Your task to perform on an android device: Go to Yahoo.com Image 0: 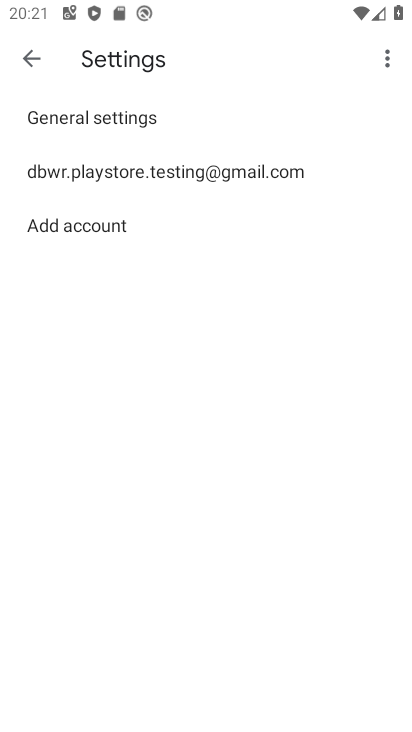
Step 0: press home button
Your task to perform on an android device: Go to Yahoo.com Image 1: 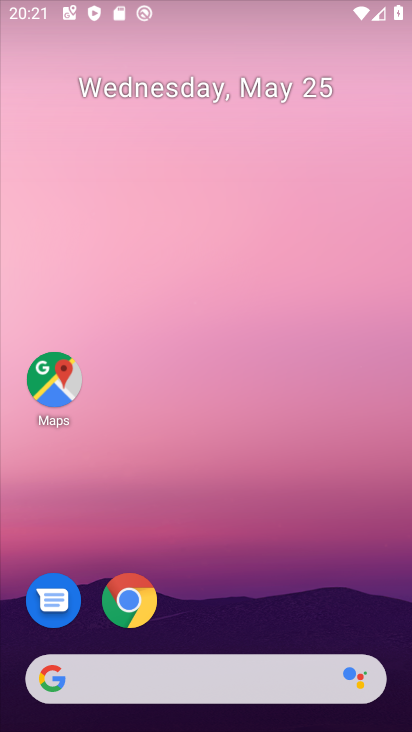
Step 1: drag from (326, 607) to (285, 306)
Your task to perform on an android device: Go to Yahoo.com Image 2: 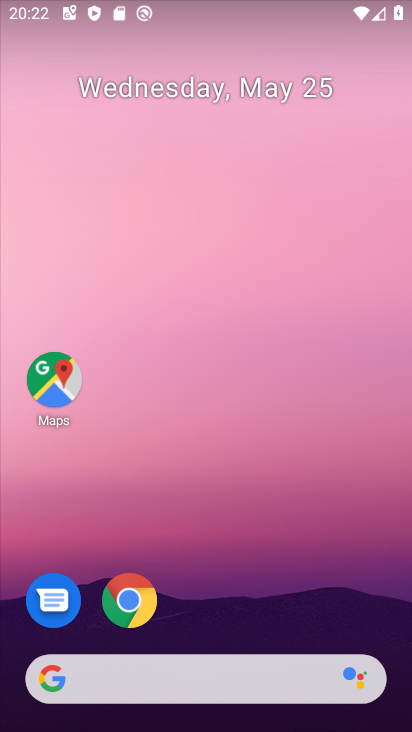
Step 2: drag from (281, 568) to (281, 219)
Your task to perform on an android device: Go to Yahoo.com Image 3: 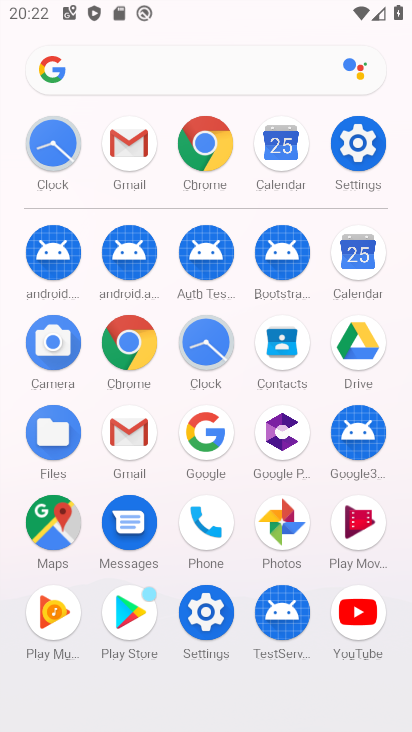
Step 3: click (142, 347)
Your task to perform on an android device: Go to Yahoo.com Image 4: 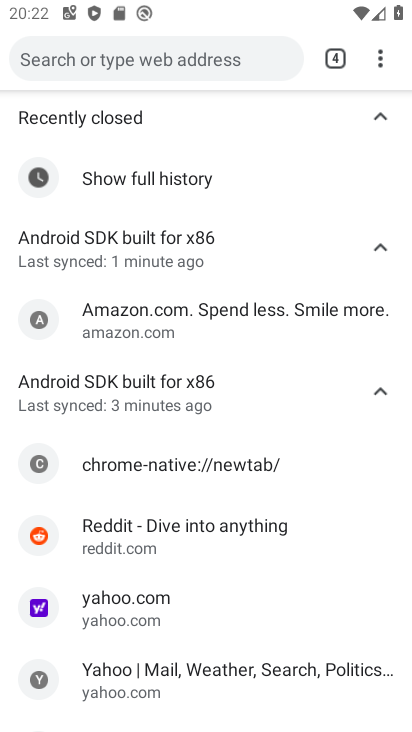
Step 4: click (202, 64)
Your task to perform on an android device: Go to Yahoo.com Image 5: 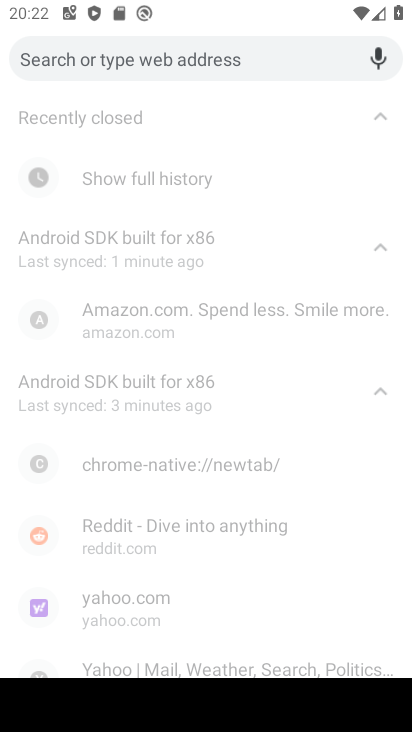
Step 5: type "yahoo.com"
Your task to perform on an android device: Go to Yahoo.com Image 6: 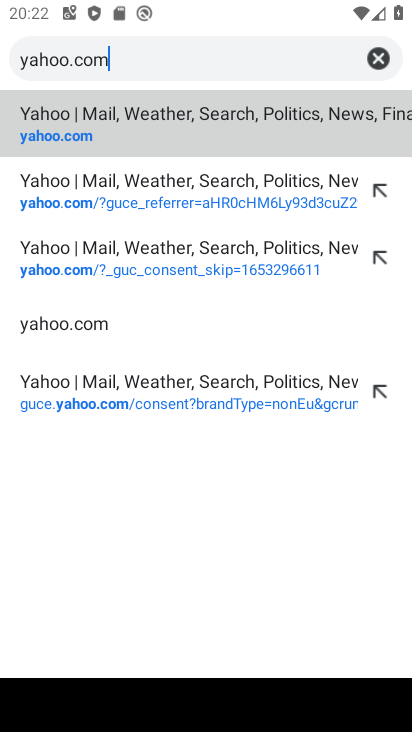
Step 6: click (110, 113)
Your task to perform on an android device: Go to Yahoo.com Image 7: 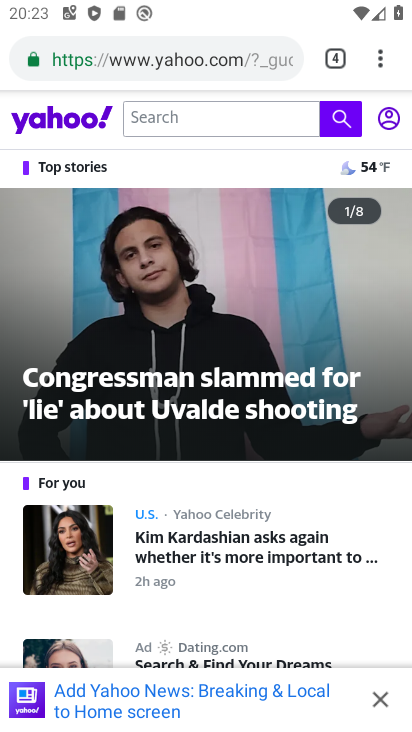
Step 7: task complete